Your task to perform on an android device: turn notification dots off Image 0: 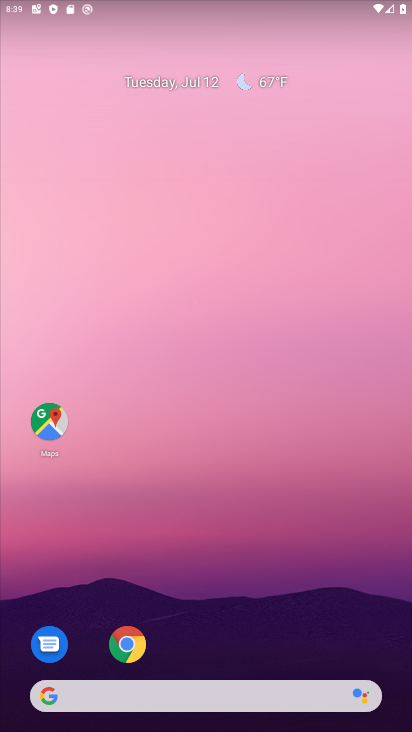
Step 0: drag from (194, 603) to (251, 102)
Your task to perform on an android device: turn notification dots off Image 1: 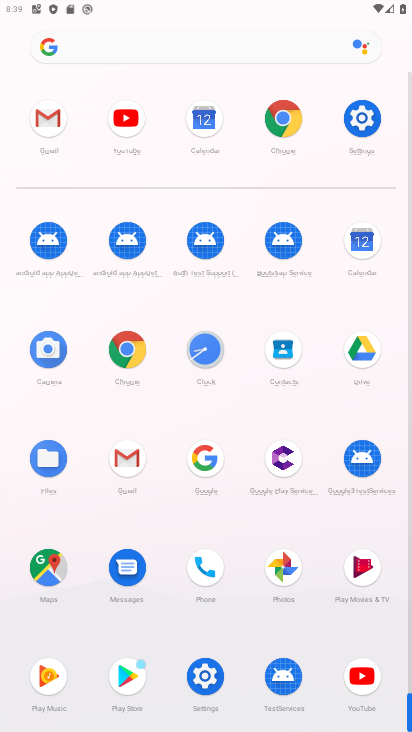
Step 1: click (364, 112)
Your task to perform on an android device: turn notification dots off Image 2: 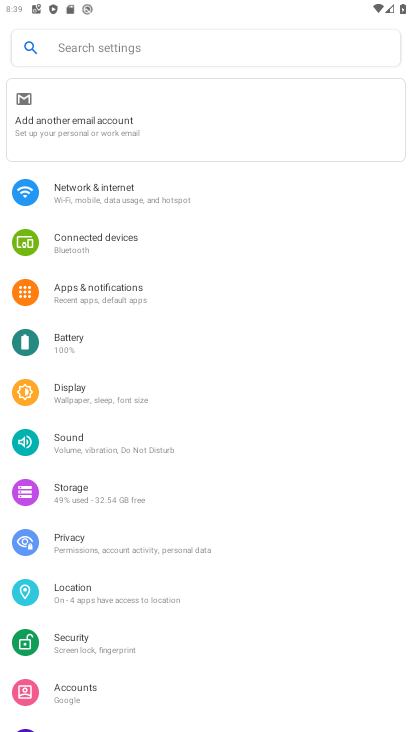
Step 2: click (130, 293)
Your task to perform on an android device: turn notification dots off Image 3: 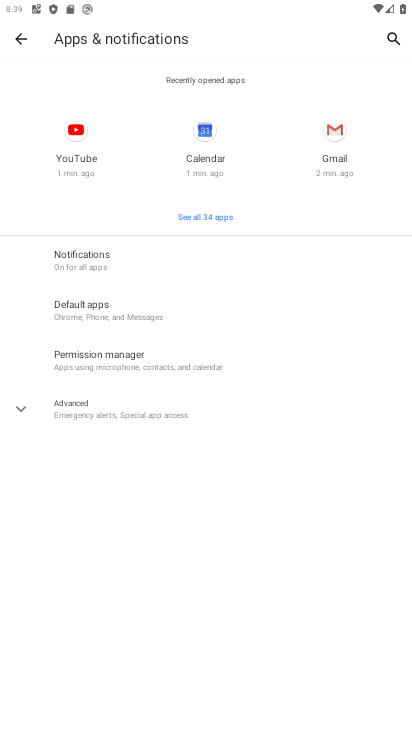
Step 3: click (139, 262)
Your task to perform on an android device: turn notification dots off Image 4: 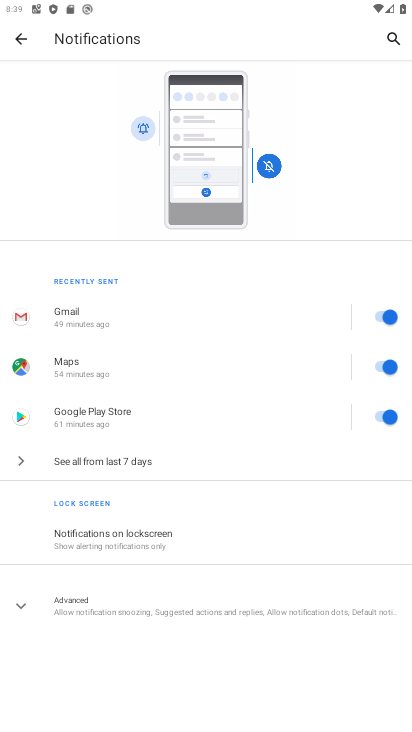
Step 4: click (94, 604)
Your task to perform on an android device: turn notification dots off Image 5: 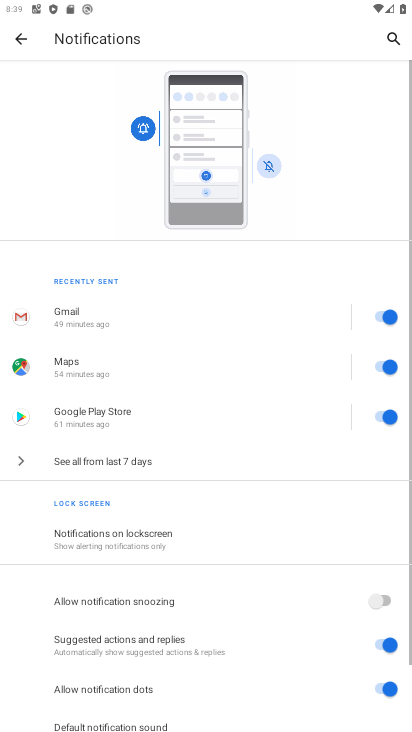
Step 5: drag from (219, 584) to (275, 359)
Your task to perform on an android device: turn notification dots off Image 6: 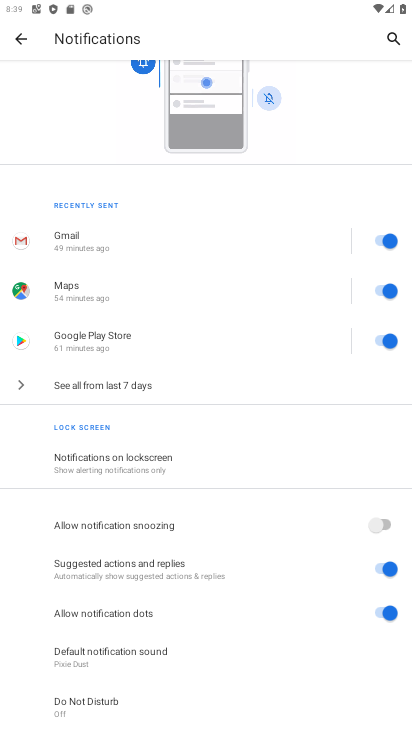
Step 6: click (375, 613)
Your task to perform on an android device: turn notification dots off Image 7: 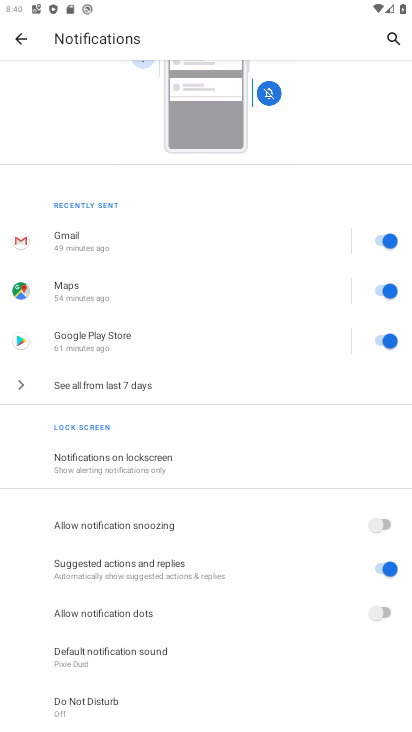
Step 7: task complete